Your task to perform on an android device: read, delete, or share a saved page in the chrome app Image 0: 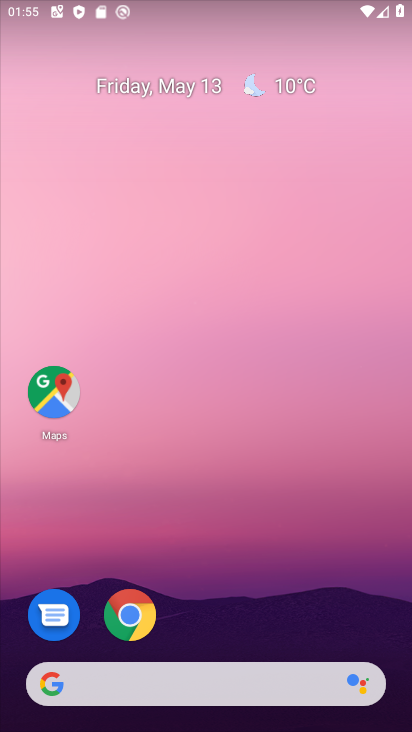
Step 0: click (141, 609)
Your task to perform on an android device: read, delete, or share a saved page in the chrome app Image 1: 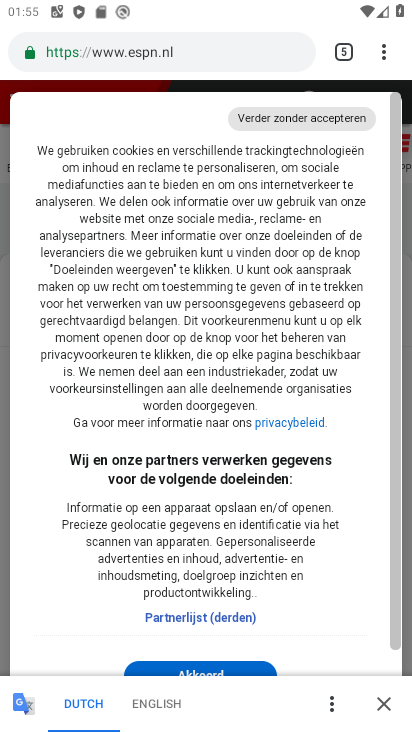
Step 1: click (383, 50)
Your task to perform on an android device: read, delete, or share a saved page in the chrome app Image 2: 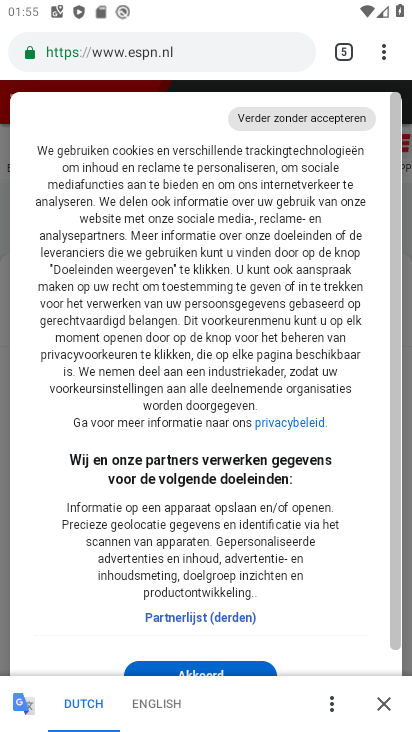
Step 2: task complete